Your task to perform on an android device: Open Youtube and go to "Your channel" Image 0: 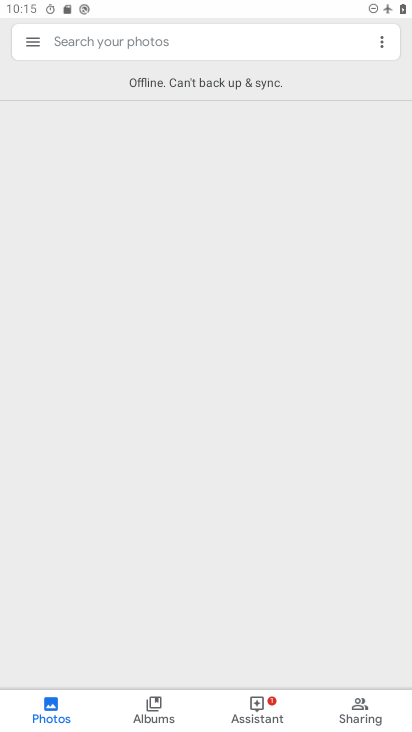
Step 0: press home button
Your task to perform on an android device: Open Youtube and go to "Your channel" Image 1: 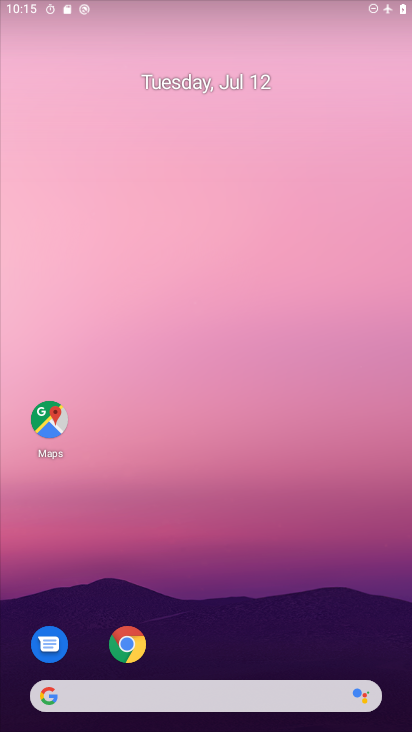
Step 1: drag from (225, 632) to (248, 80)
Your task to perform on an android device: Open Youtube and go to "Your channel" Image 2: 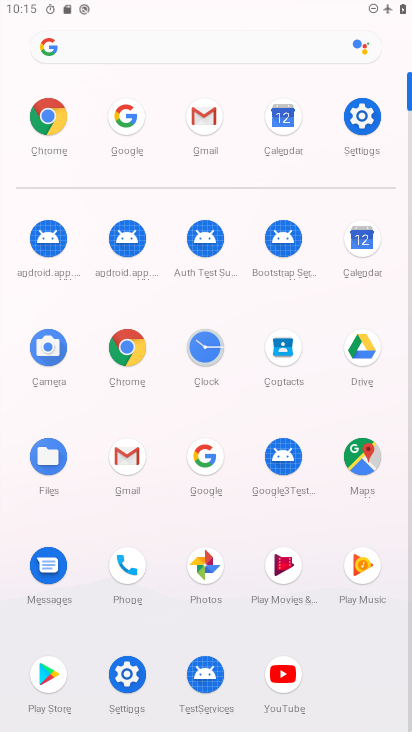
Step 2: click (281, 696)
Your task to perform on an android device: Open Youtube and go to "Your channel" Image 3: 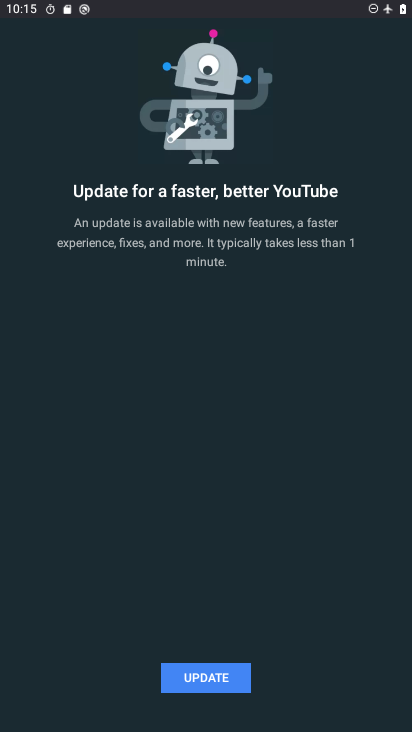
Step 3: click (217, 673)
Your task to perform on an android device: Open Youtube and go to "Your channel" Image 4: 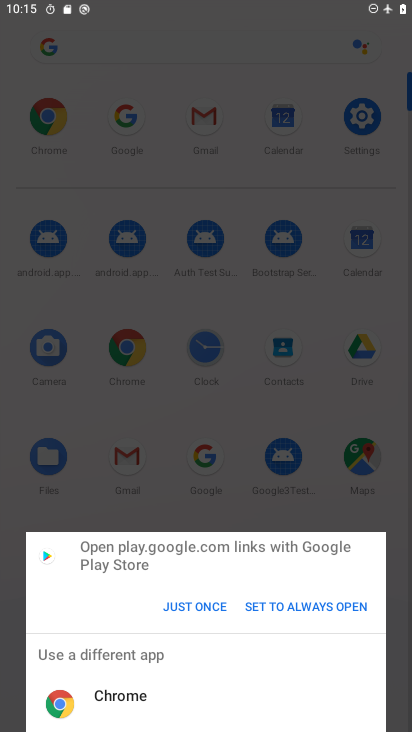
Step 4: click (206, 610)
Your task to perform on an android device: Open Youtube and go to "Your channel" Image 5: 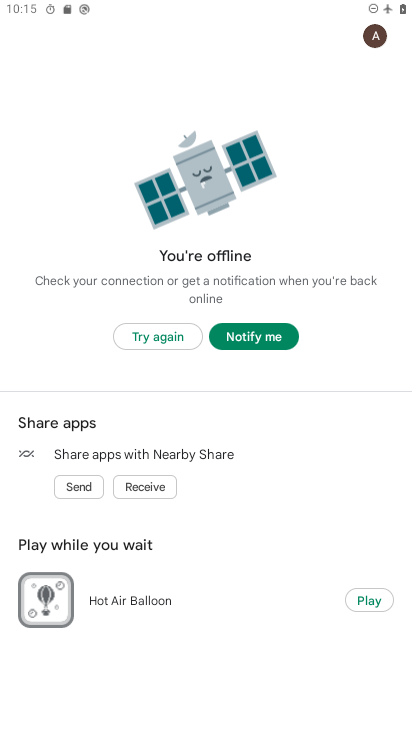
Step 5: task complete